Your task to perform on an android device: turn on wifi Image 0: 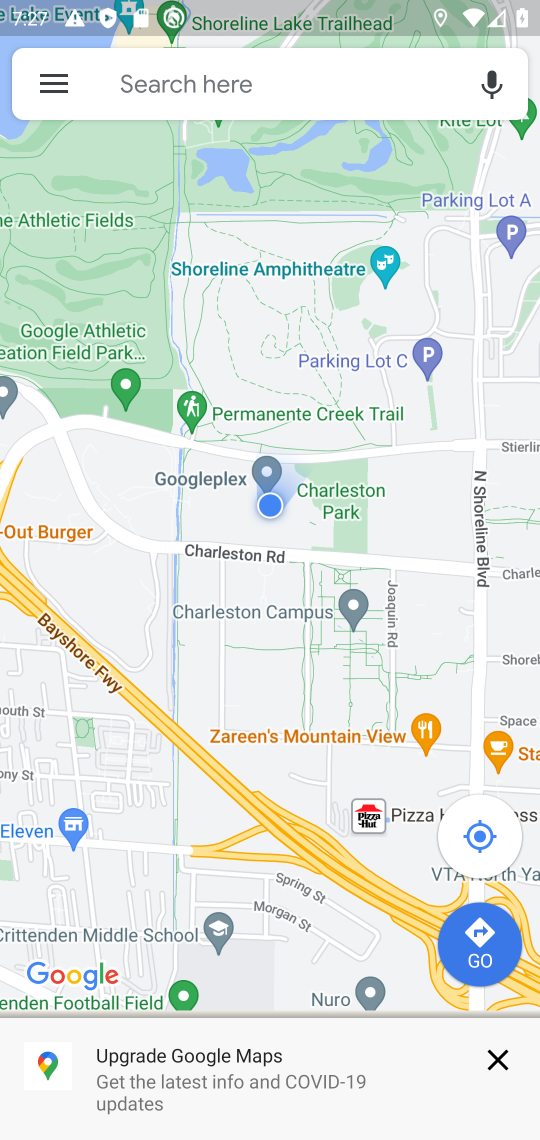
Step 0: press home button
Your task to perform on an android device: turn on wifi Image 1: 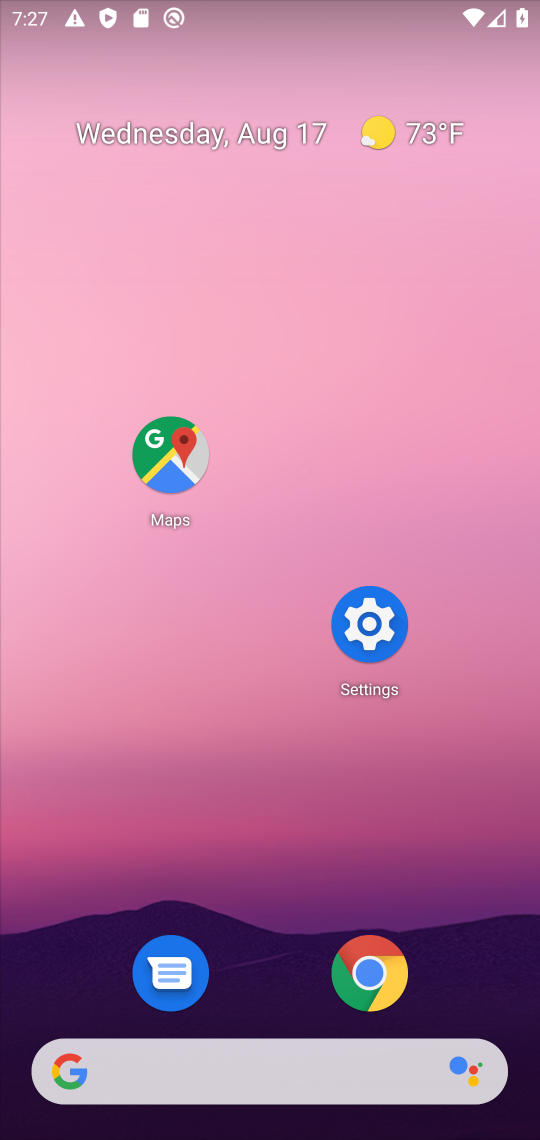
Step 1: click (377, 624)
Your task to perform on an android device: turn on wifi Image 2: 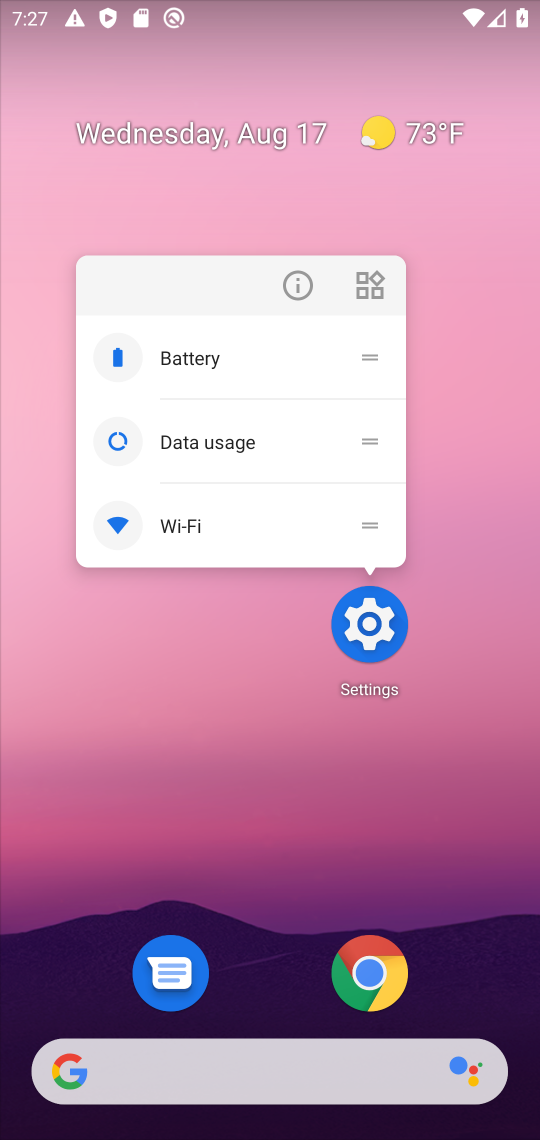
Step 2: click (367, 634)
Your task to perform on an android device: turn on wifi Image 3: 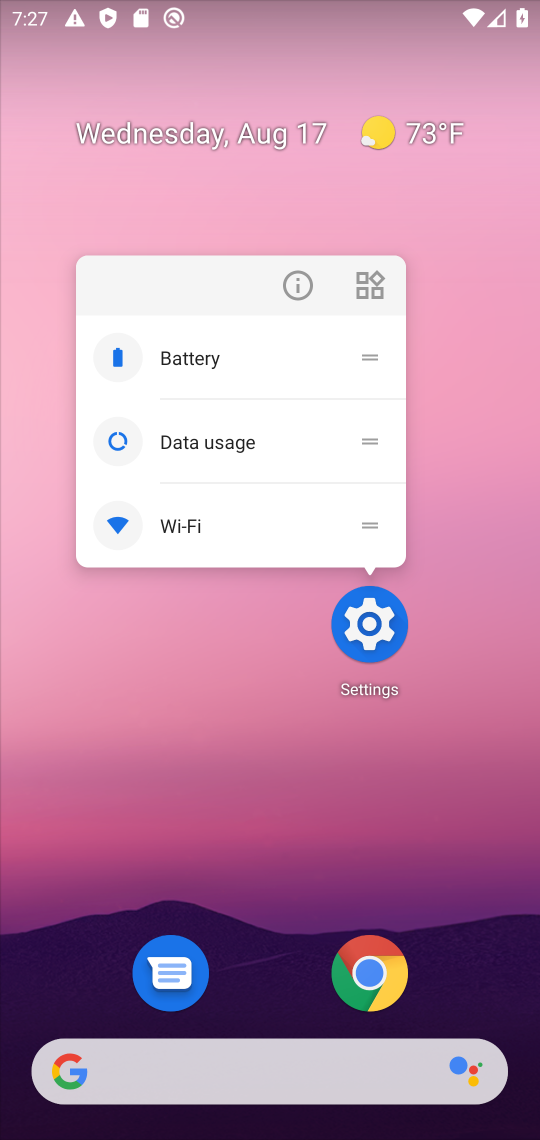
Step 3: click (374, 627)
Your task to perform on an android device: turn on wifi Image 4: 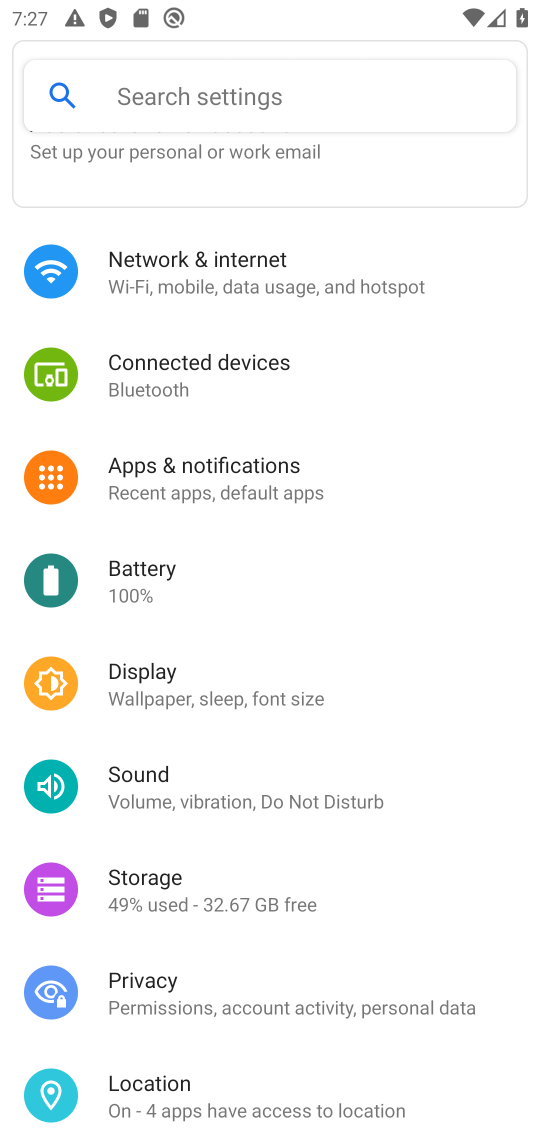
Step 4: click (242, 254)
Your task to perform on an android device: turn on wifi Image 5: 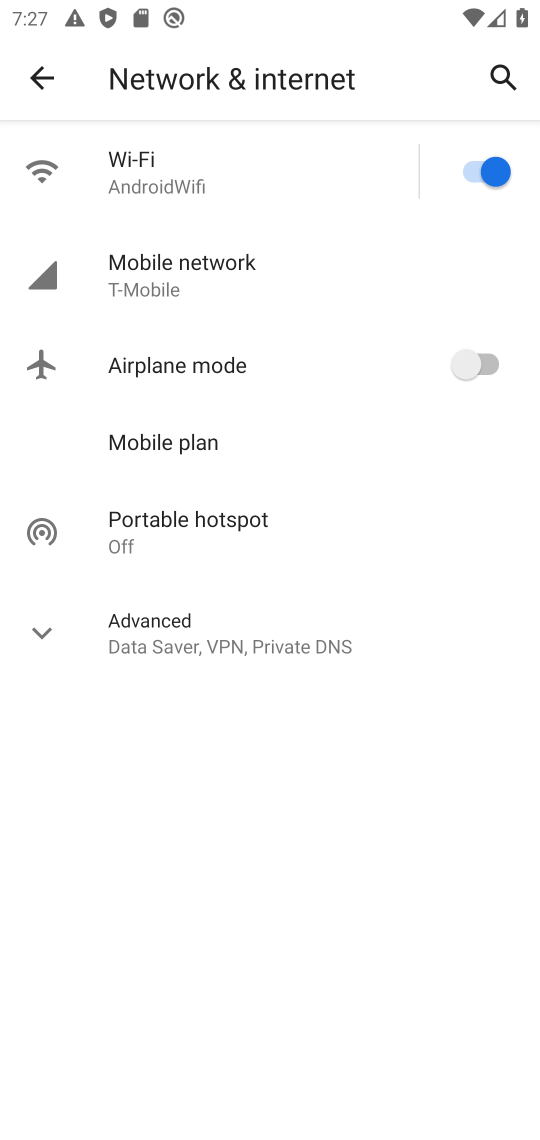
Step 5: click (174, 183)
Your task to perform on an android device: turn on wifi Image 6: 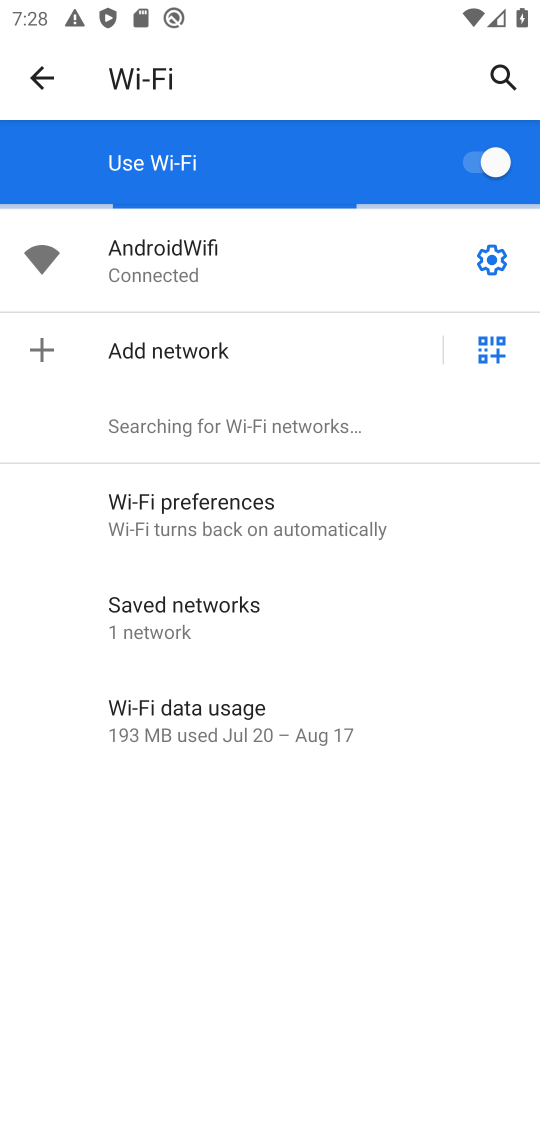
Step 6: task complete